Your task to perform on an android device: Open internet settings Image 0: 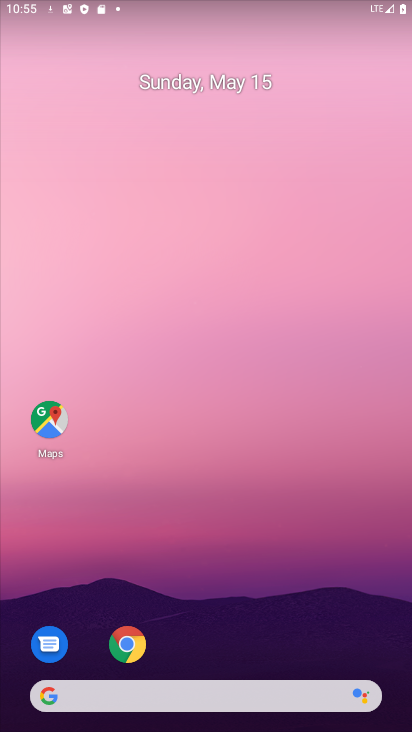
Step 0: drag from (277, 716) to (232, 129)
Your task to perform on an android device: Open internet settings Image 1: 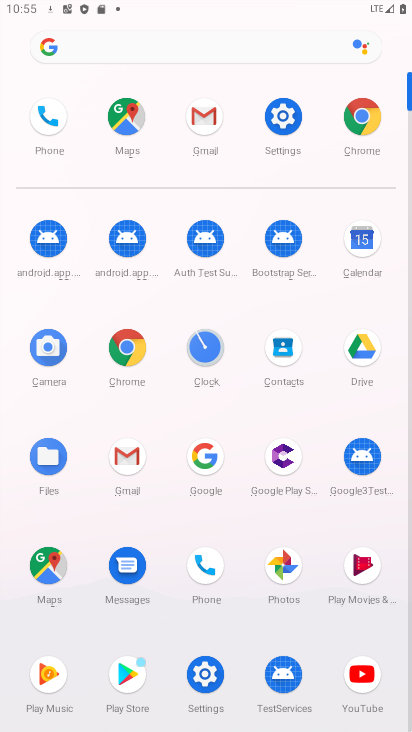
Step 1: click (266, 119)
Your task to perform on an android device: Open internet settings Image 2: 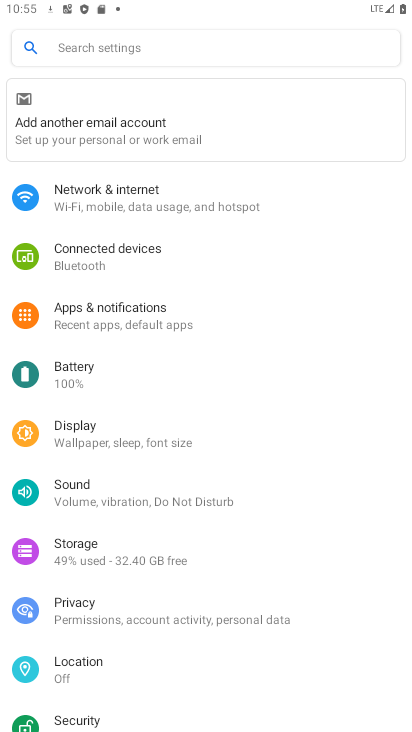
Step 2: click (149, 193)
Your task to perform on an android device: Open internet settings Image 3: 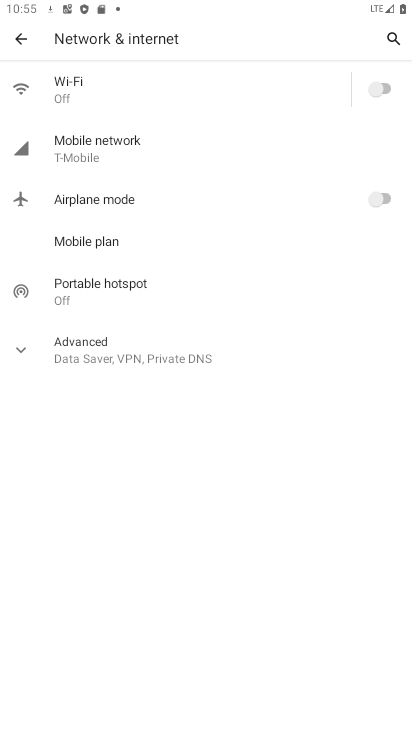
Step 3: task complete